Your task to perform on an android device: turn on translation in the chrome app Image 0: 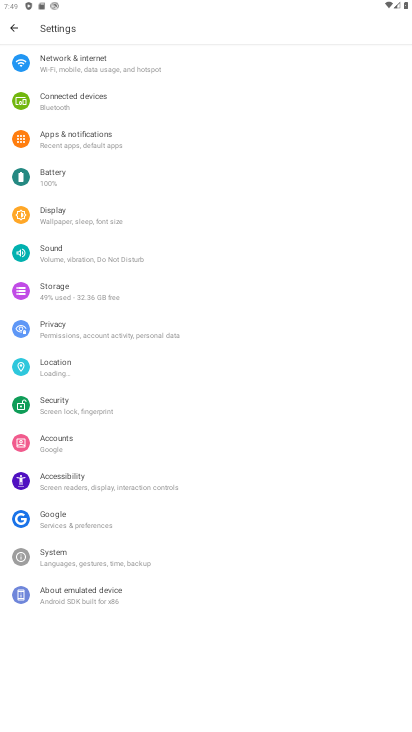
Step 0: press home button
Your task to perform on an android device: turn on translation in the chrome app Image 1: 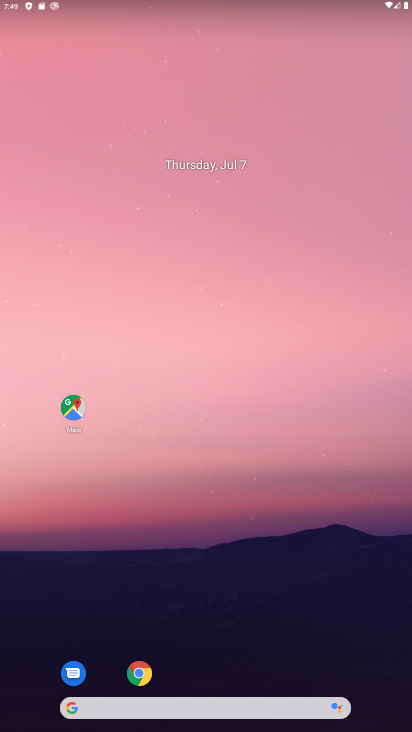
Step 1: click (138, 673)
Your task to perform on an android device: turn on translation in the chrome app Image 2: 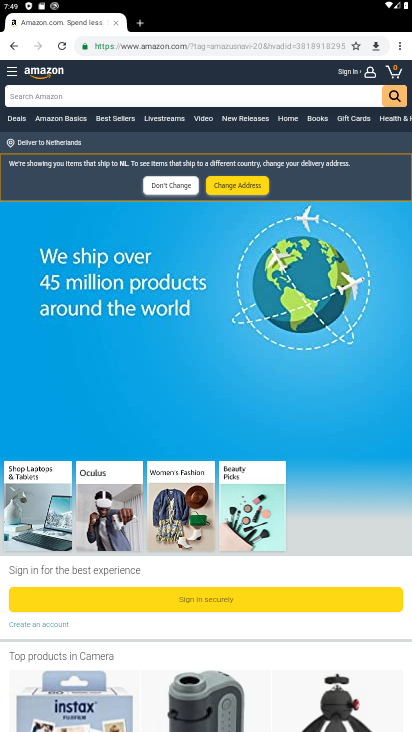
Step 2: click (400, 50)
Your task to perform on an android device: turn on translation in the chrome app Image 3: 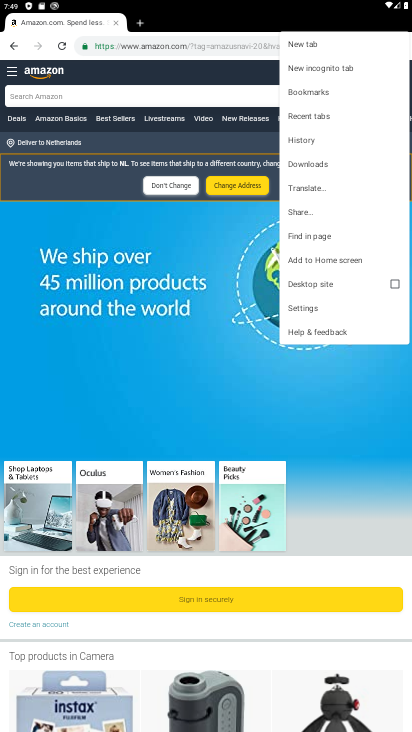
Step 3: click (316, 306)
Your task to perform on an android device: turn on translation in the chrome app Image 4: 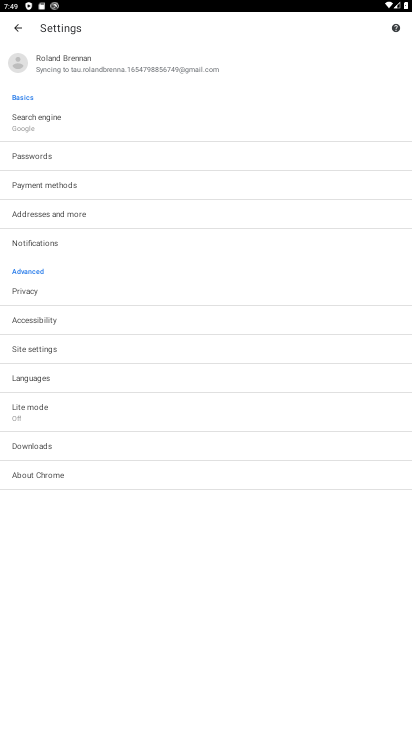
Step 4: click (47, 375)
Your task to perform on an android device: turn on translation in the chrome app Image 5: 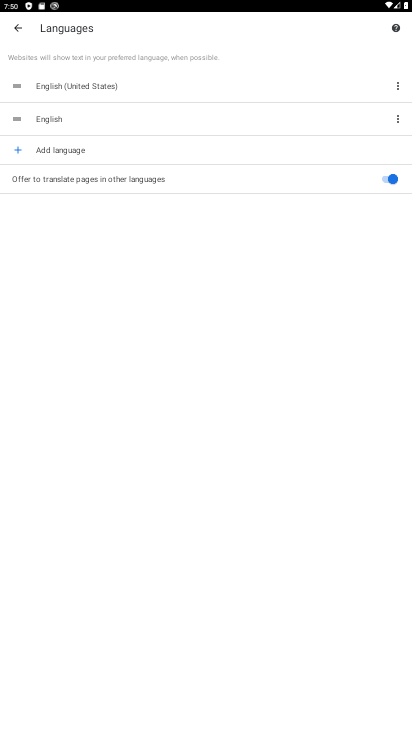
Step 5: task complete